Your task to perform on an android device: install app "Google Duo" Image 0: 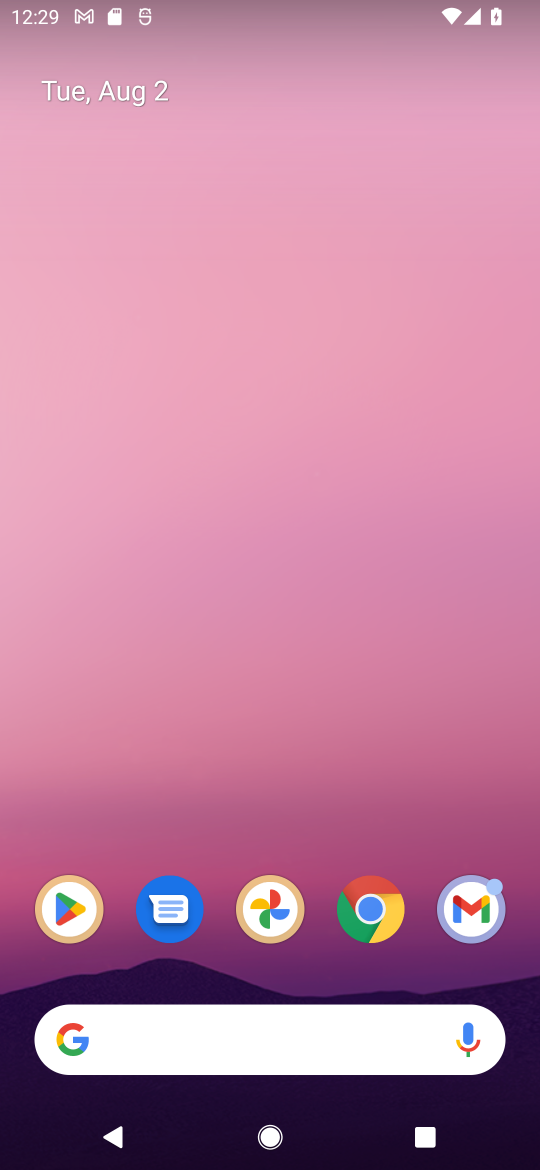
Step 0: click (71, 888)
Your task to perform on an android device: install app "Google Duo" Image 1: 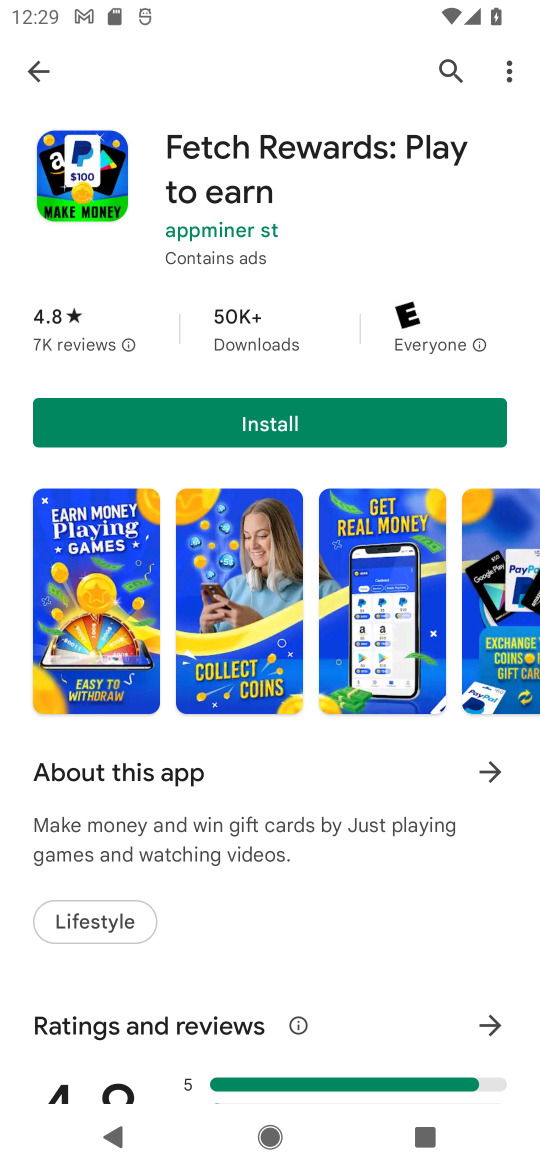
Step 1: click (37, 64)
Your task to perform on an android device: install app "Google Duo" Image 2: 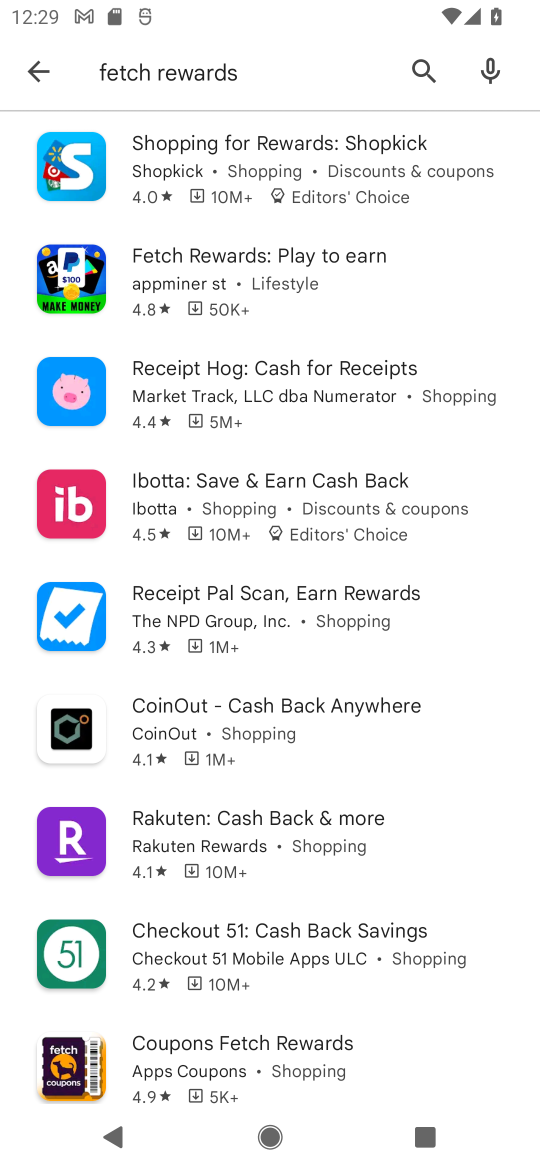
Step 2: click (37, 64)
Your task to perform on an android device: install app "Google Duo" Image 3: 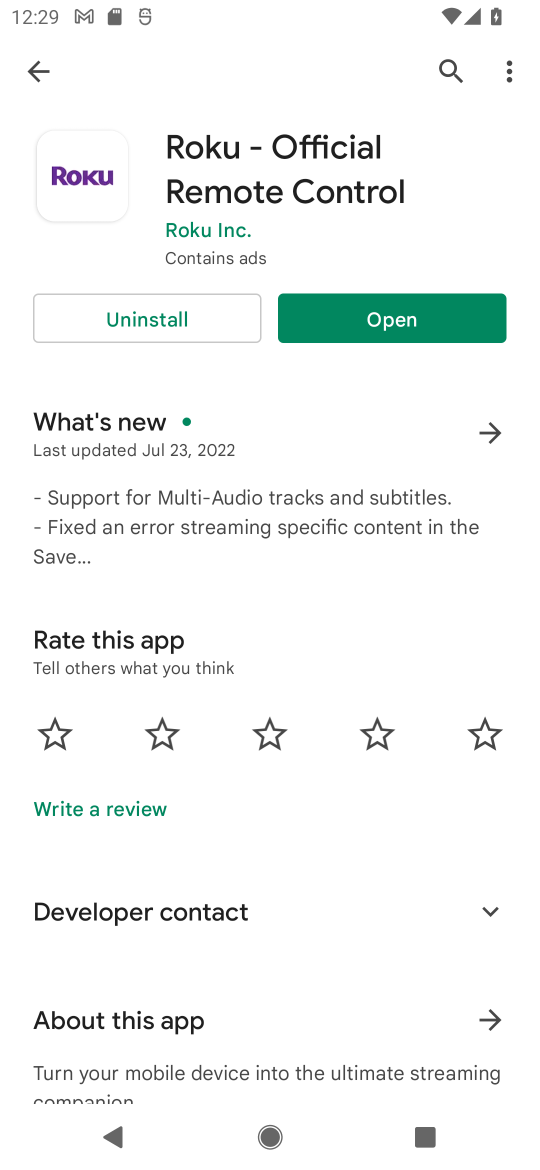
Step 3: press home button
Your task to perform on an android device: install app "Google Duo" Image 4: 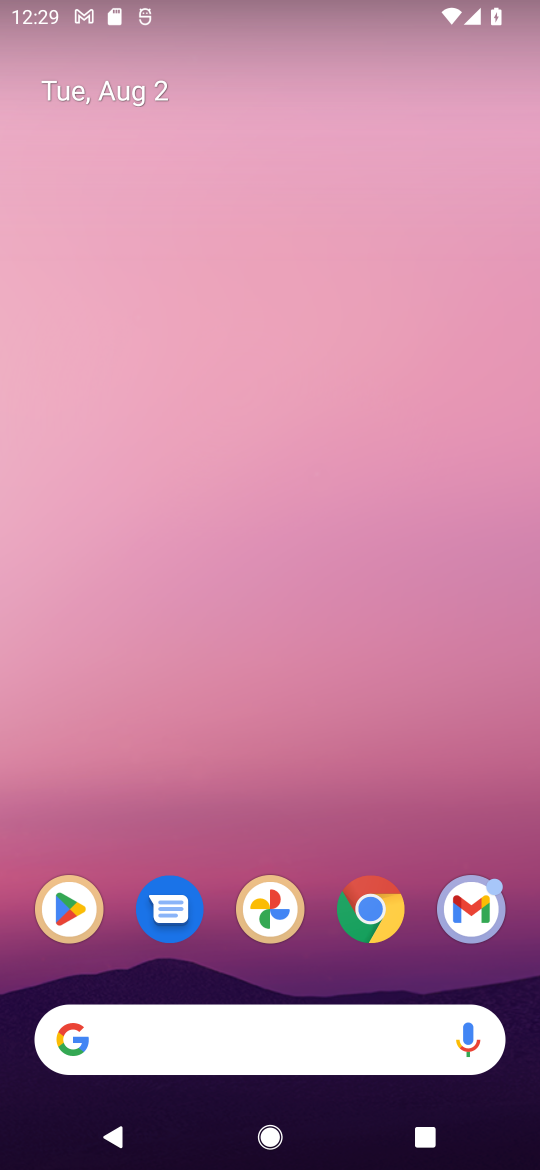
Step 4: click (71, 899)
Your task to perform on an android device: install app "Google Duo" Image 5: 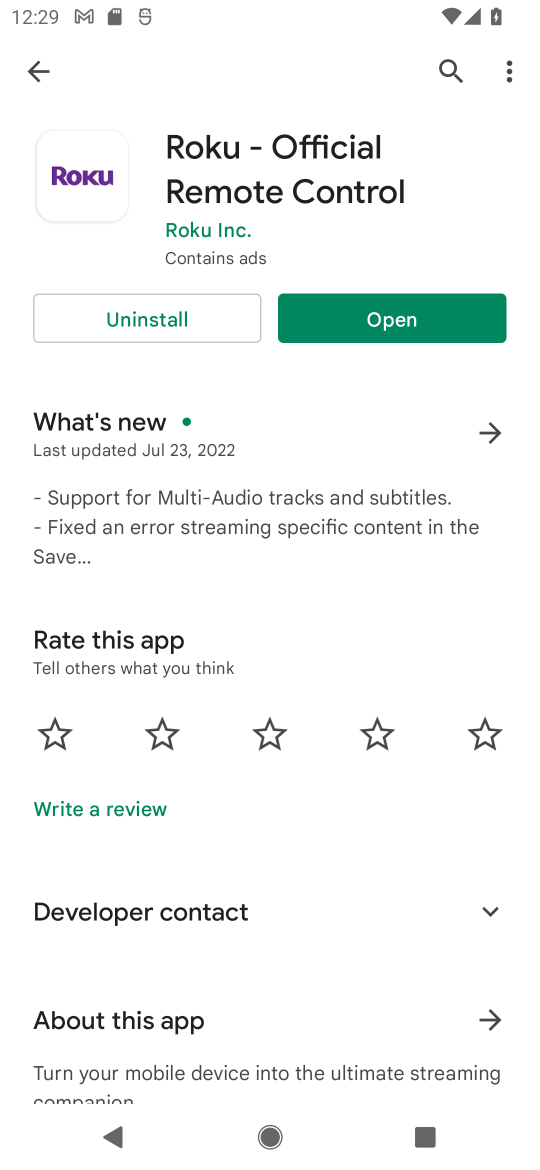
Step 5: click (440, 65)
Your task to perform on an android device: install app "Google Duo" Image 6: 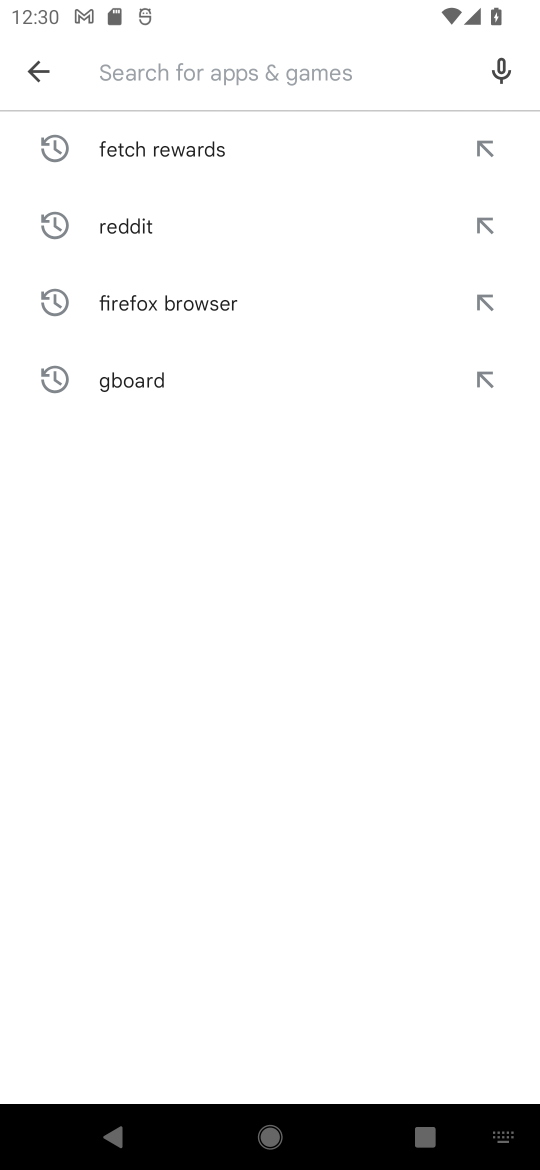
Step 6: type "Google Duo""
Your task to perform on an android device: install app "Google Duo" Image 7: 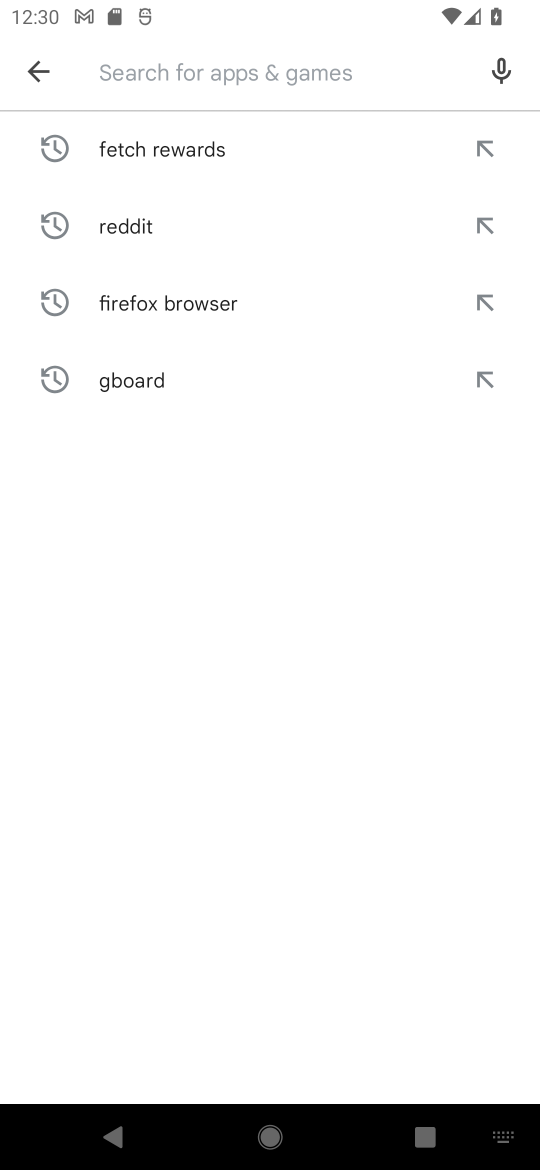
Step 7: type "Google Duo"
Your task to perform on an android device: install app "Google Duo" Image 8: 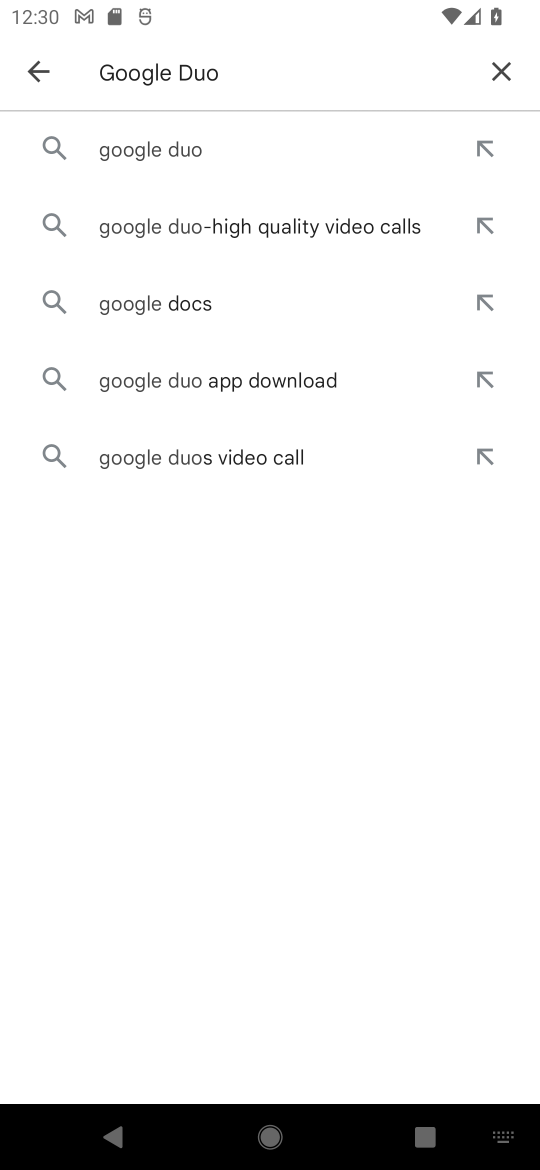
Step 8: click (165, 140)
Your task to perform on an android device: install app "Google Duo" Image 9: 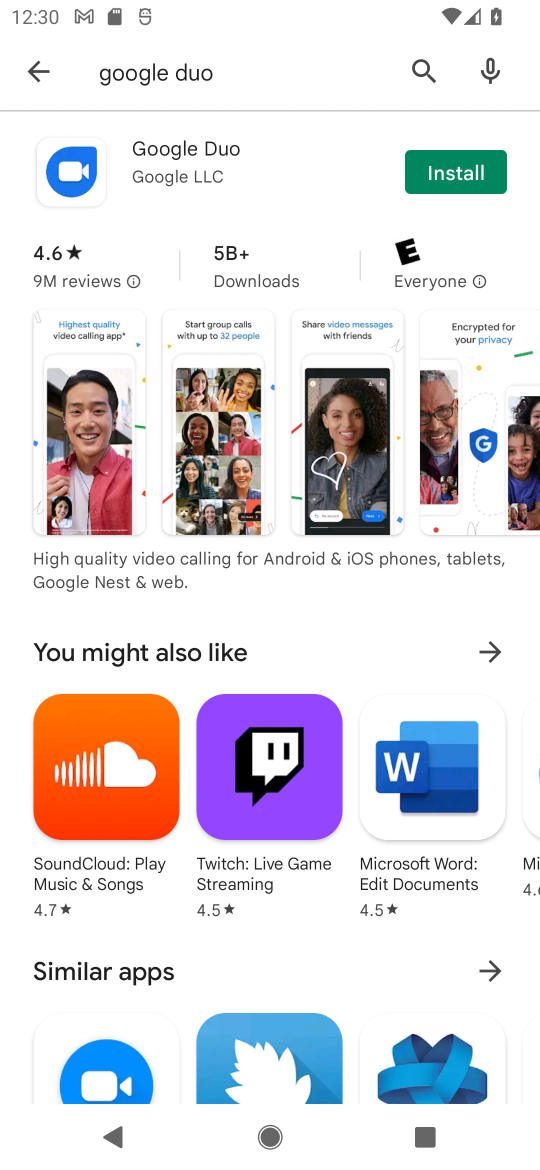
Step 9: click (450, 170)
Your task to perform on an android device: install app "Google Duo" Image 10: 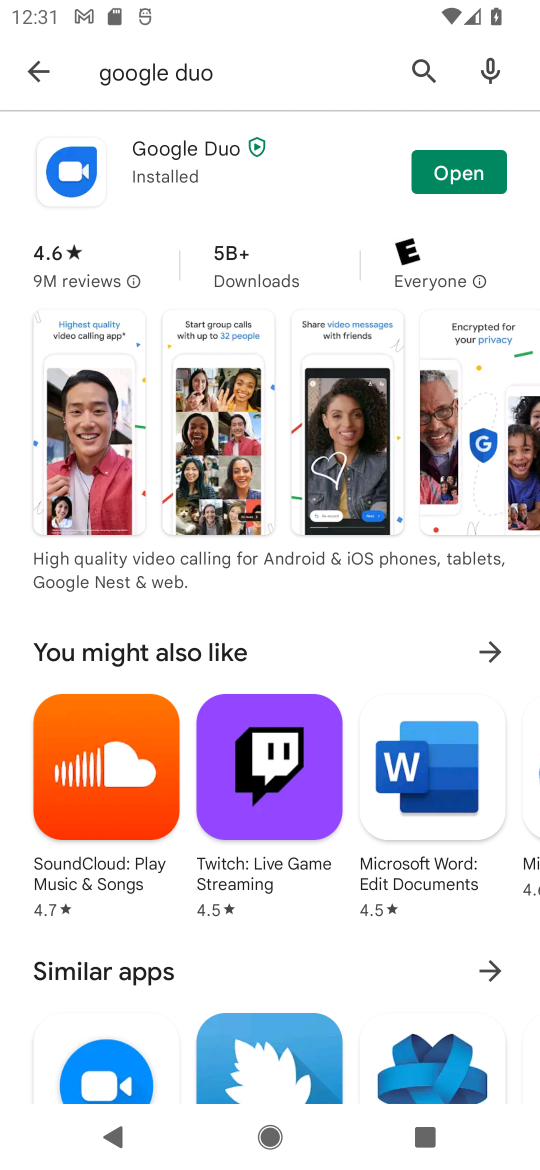
Step 10: task complete